Your task to perform on an android device: turn on data saver in the chrome app Image 0: 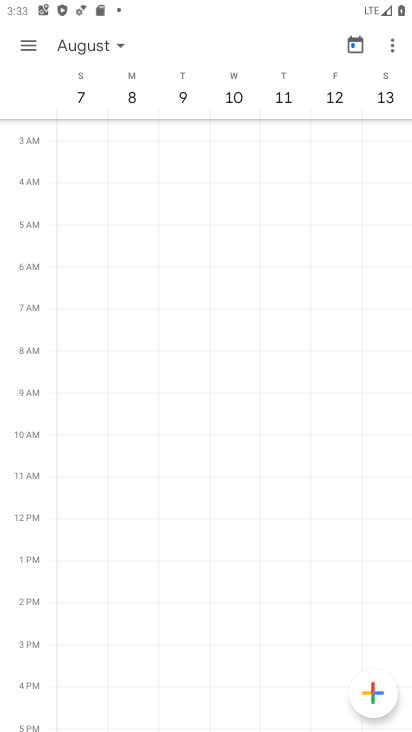
Step 0: press home button
Your task to perform on an android device: turn on data saver in the chrome app Image 1: 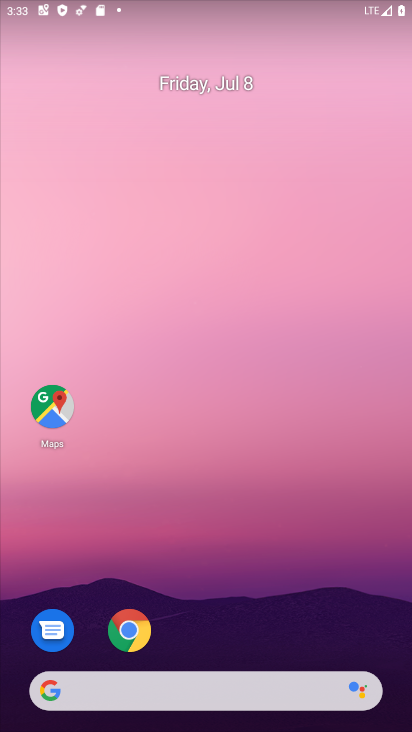
Step 1: click (129, 629)
Your task to perform on an android device: turn on data saver in the chrome app Image 2: 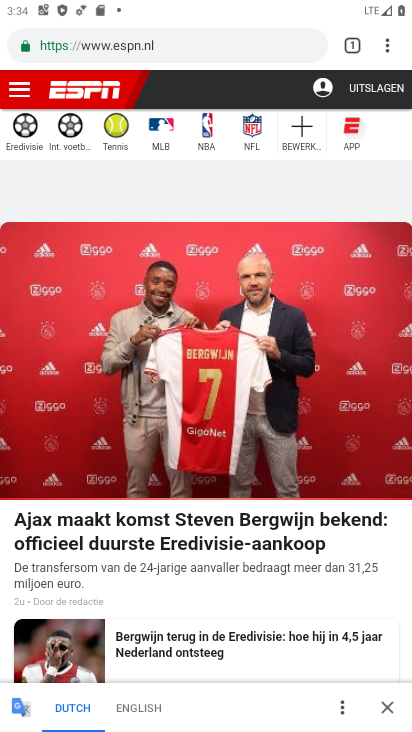
Step 2: click (387, 42)
Your task to perform on an android device: turn on data saver in the chrome app Image 3: 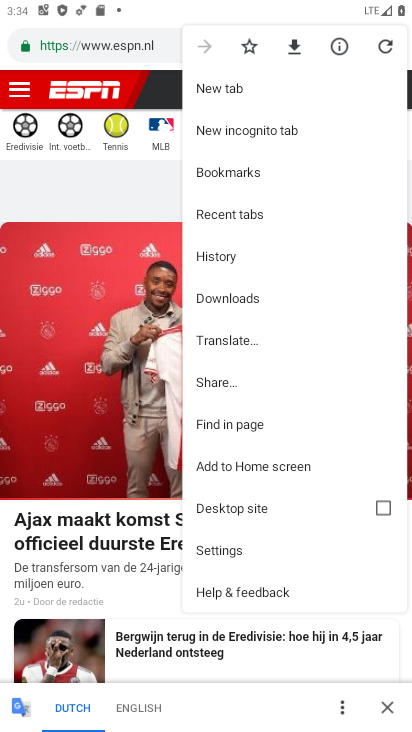
Step 3: click (230, 552)
Your task to perform on an android device: turn on data saver in the chrome app Image 4: 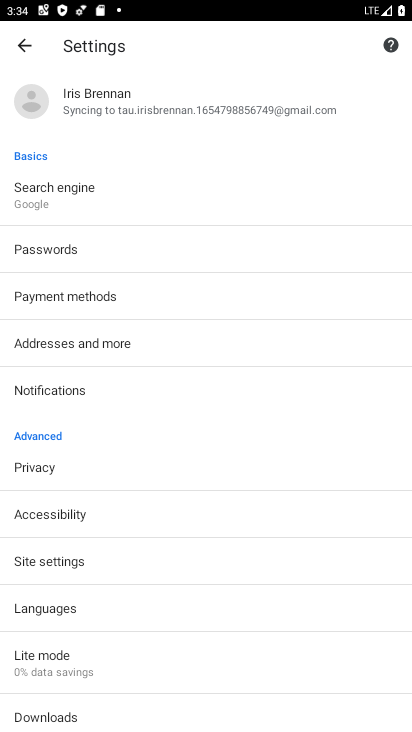
Step 4: click (61, 651)
Your task to perform on an android device: turn on data saver in the chrome app Image 5: 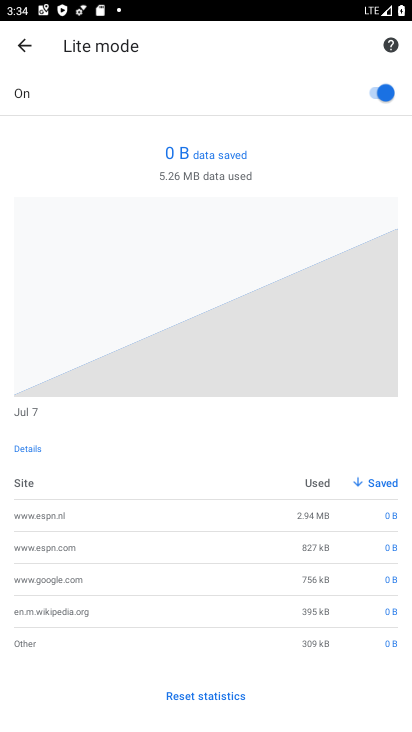
Step 5: task complete